Your task to perform on an android device: Go to Maps Image 0: 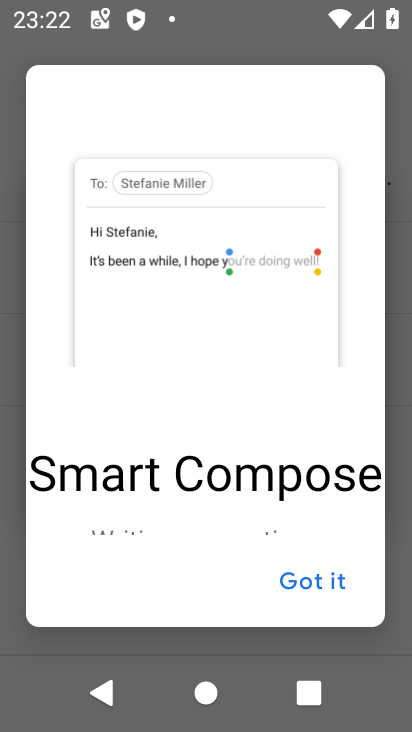
Step 0: press home button
Your task to perform on an android device: Go to Maps Image 1: 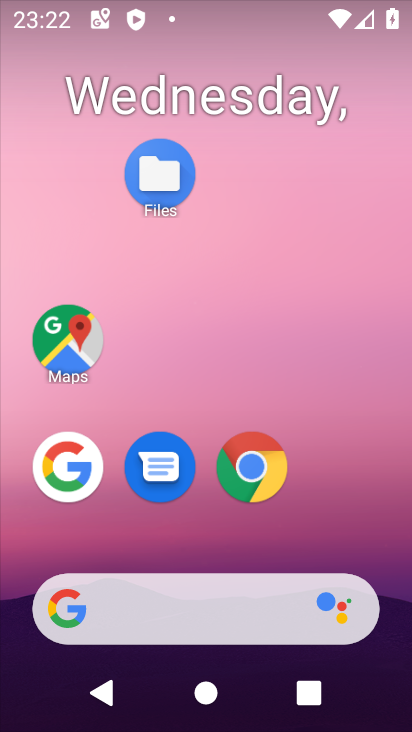
Step 1: click (54, 342)
Your task to perform on an android device: Go to Maps Image 2: 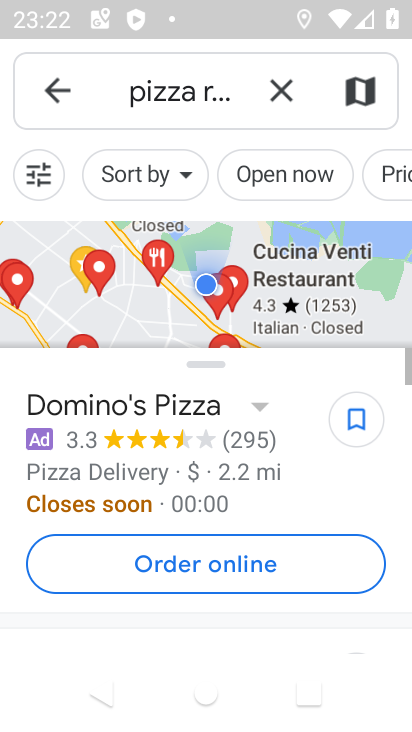
Step 2: click (66, 81)
Your task to perform on an android device: Go to Maps Image 3: 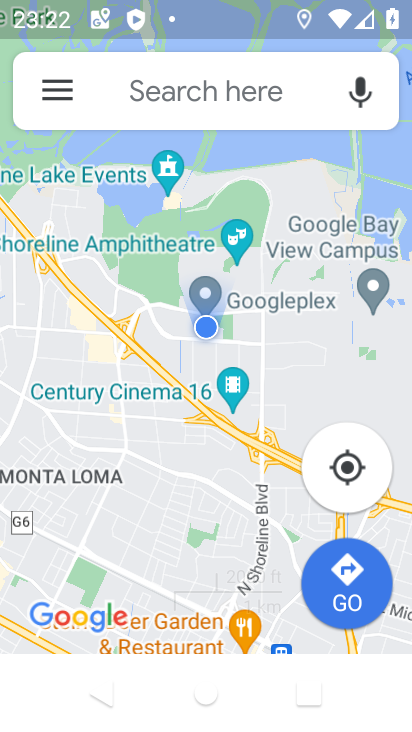
Step 3: task complete